Your task to perform on an android device: toggle show notifications on the lock screen Image 0: 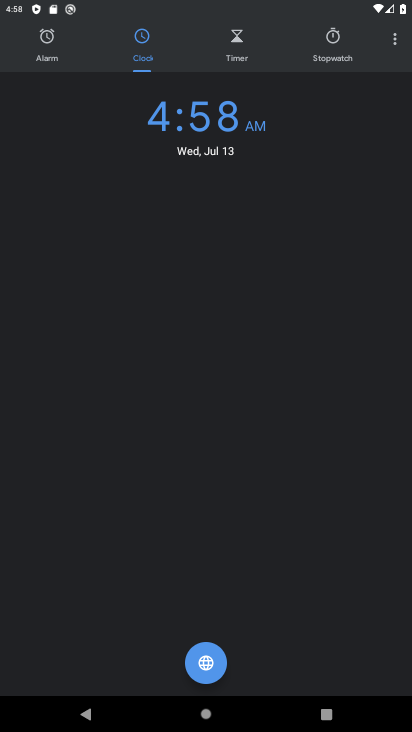
Step 0: press home button
Your task to perform on an android device: toggle show notifications on the lock screen Image 1: 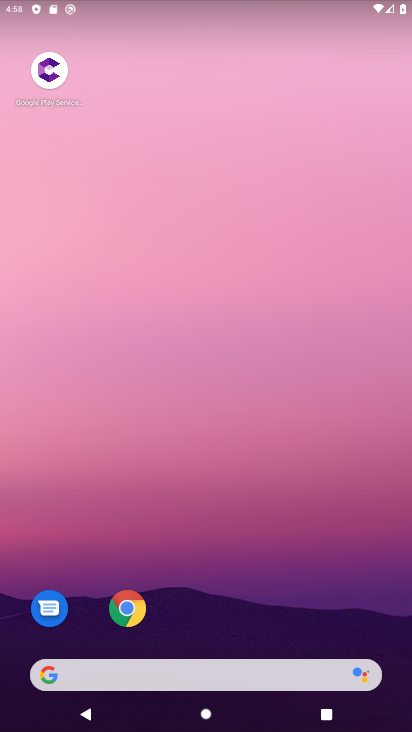
Step 1: drag from (225, 583) to (233, 28)
Your task to perform on an android device: toggle show notifications on the lock screen Image 2: 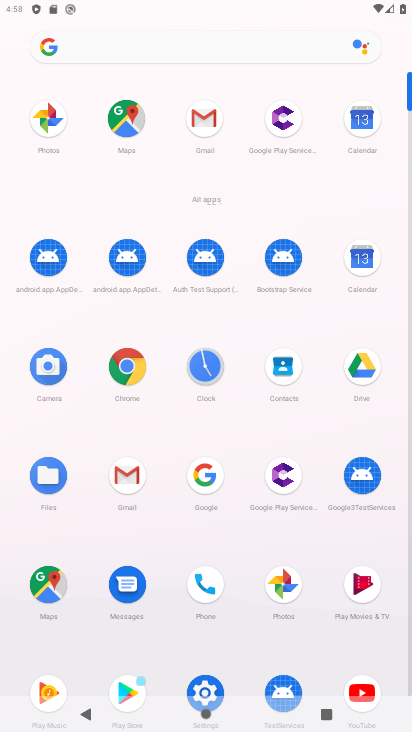
Step 2: click (202, 686)
Your task to perform on an android device: toggle show notifications on the lock screen Image 3: 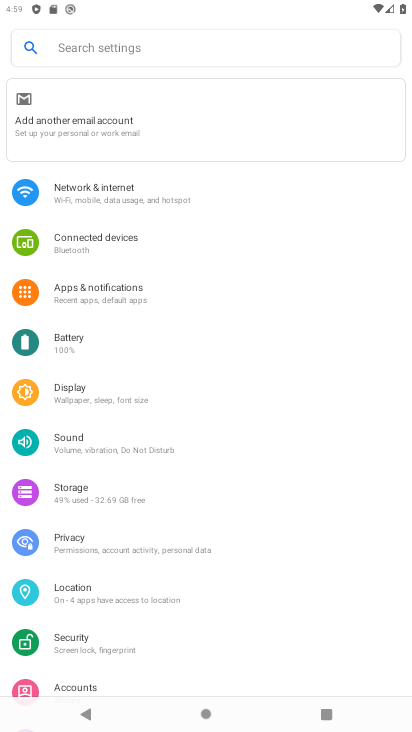
Step 3: click (119, 296)
Your task to perform on an android device: toggle show notifications on the lock screen Image 4: 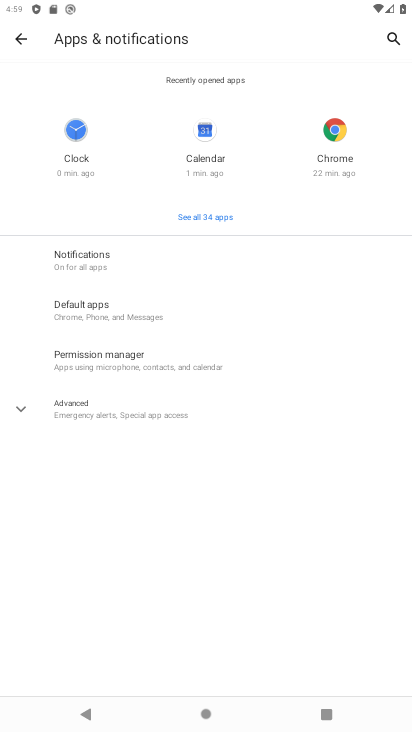
Step 4: click (89, 261)
Your task to perform on an android device: toggle show notifications on the lock screen Image 5: 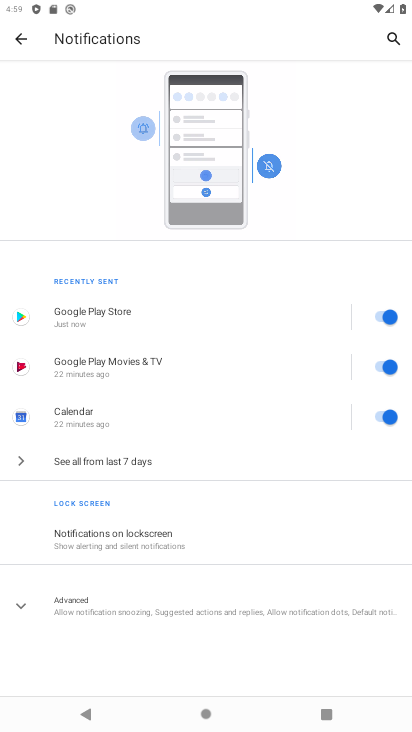
Step 5: click (120, 546)
Your task to perform on an android device: toggle show notifications on the lock screen Image 6: 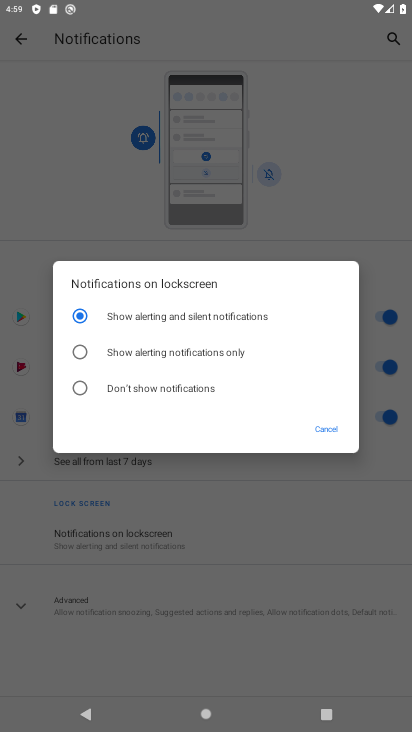
Step 6: click (70, 349)
Your task to perform on an android device: toggle show notifications on the lock screen Image 7: 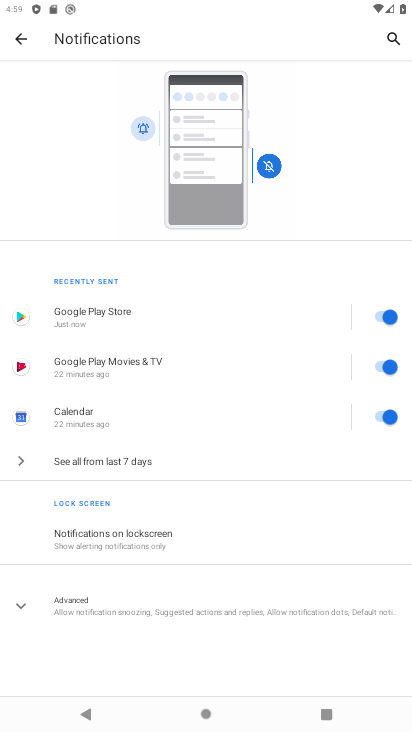
Step 7: task complete